Your task to perform on an android device: Go to Maps Image 0: 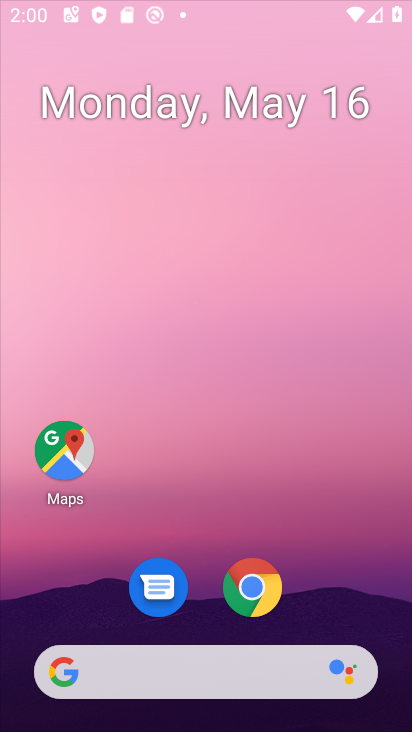
Step 0: drag from (296, 724) to (197, 174)
Your task to perform on an android device: Go to Maps Image 1: 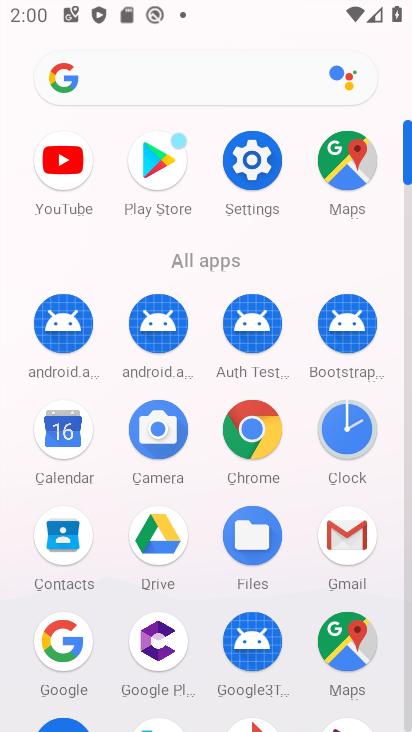
Step 1: click (351, 156)
Your task to perform on an android device: Go to Maps Image 2: 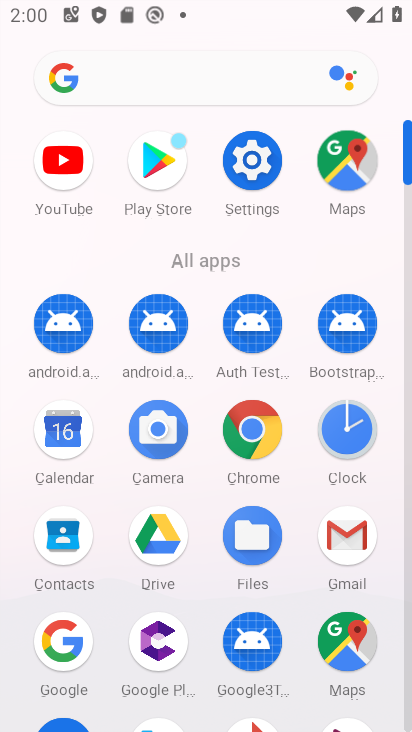
Step 2: click (351, 157)
Your task to perform on an android device: Go to Maps Image 3: 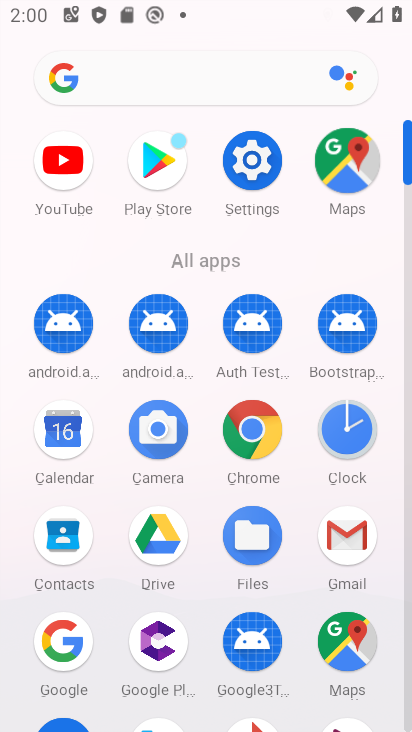
Step 3: click (351, 157)
Your task to perform on an android device: Go to Maps Image 4: 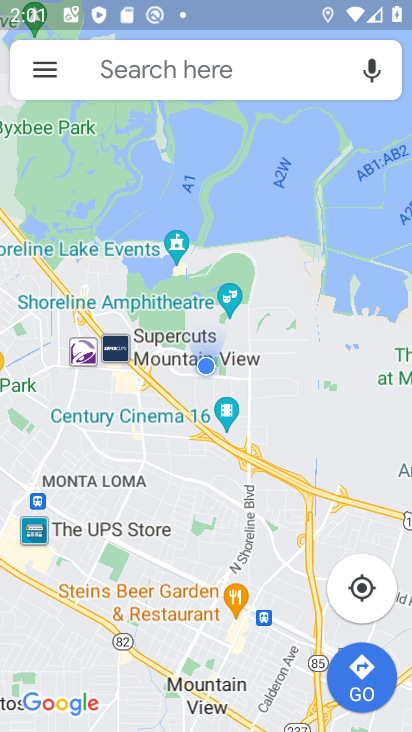
Step 4: click (104, 65)
Your task to perform on an android device: Go to Maps Image 5: 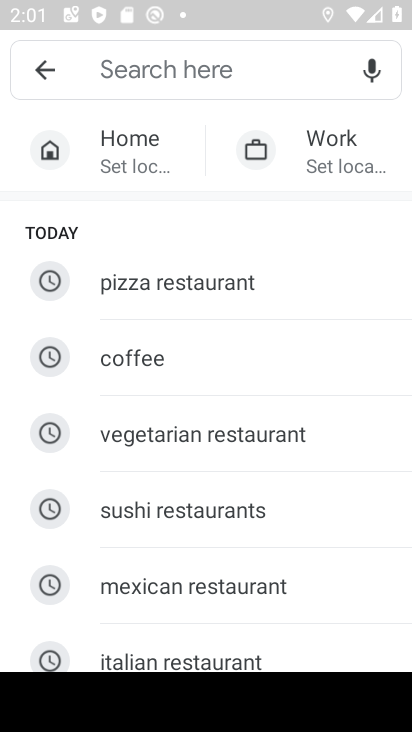
Step 5: click (33, 65)
Your task to perform on an android device: Go to Maps Image 6: 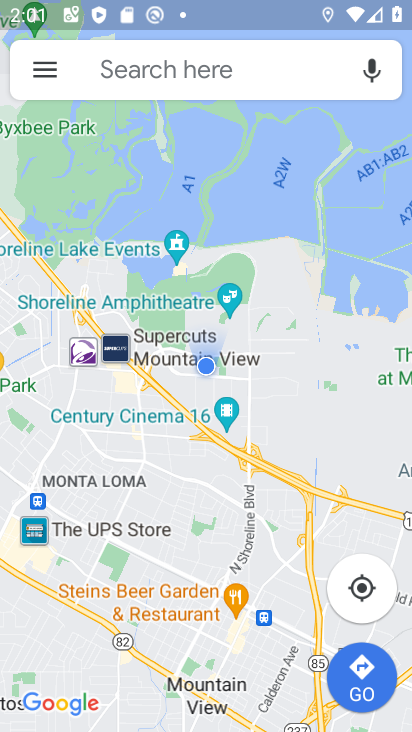
Step 6: task complete